Your task to perform on an android device: empty trash in the gmail app Image 0: 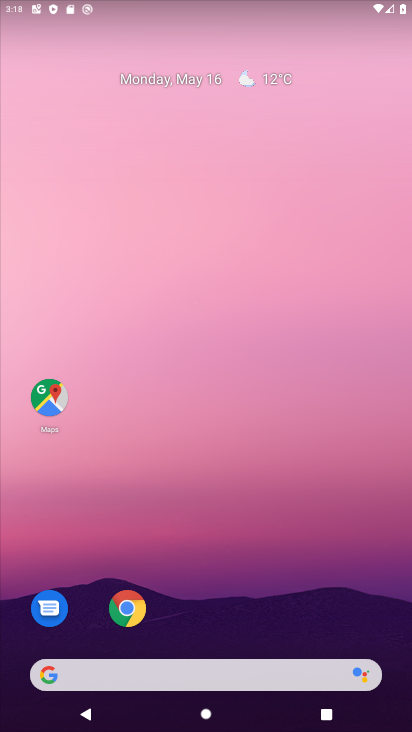
Step 0: drag from (192, 583) to (164, 0)
Your task to perform on an android device: empty trash in the gmail app Image 1: 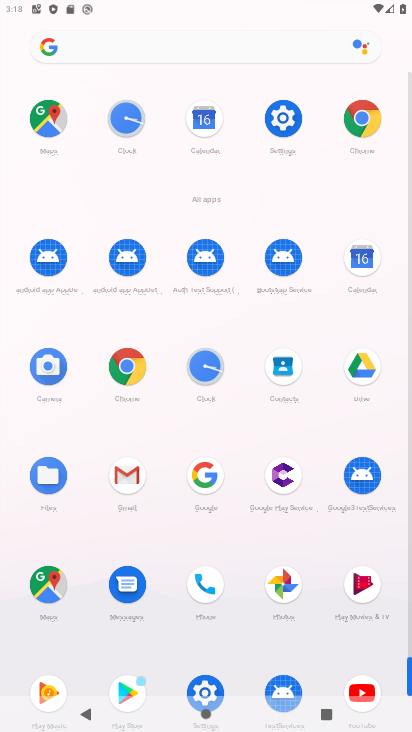
Step 1: click (121, 473)
Your task to perform on an android device: empty trash in the gmail app Image 2: 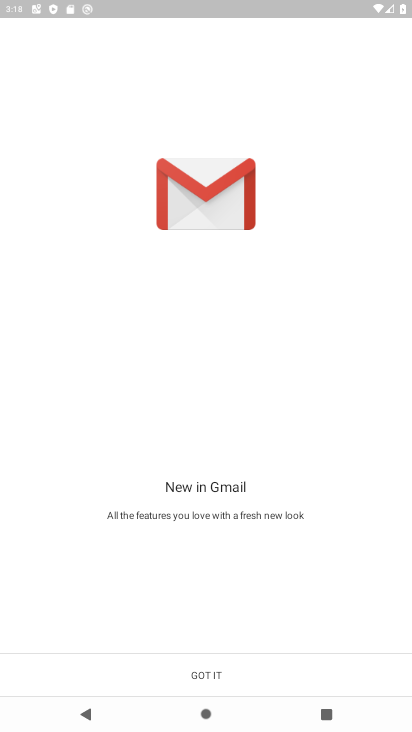
Step 2: click (208, 675)
Your task to perform on an android device: empty trash in the gmail app Image 3: 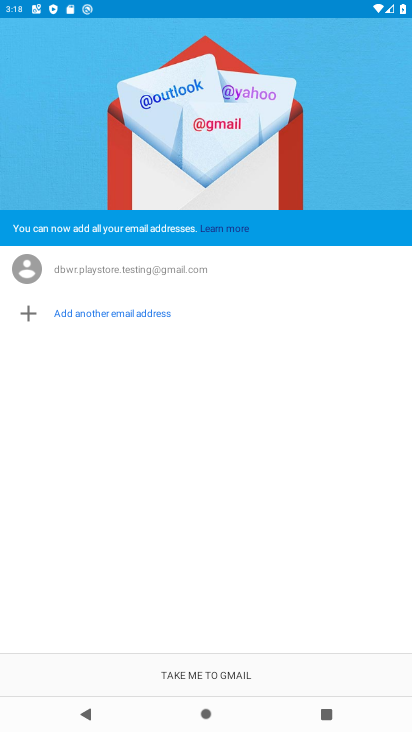
Step 3: click (219, 668)
Your task to perform on an android device: empty trash in the gmail app Image 4: 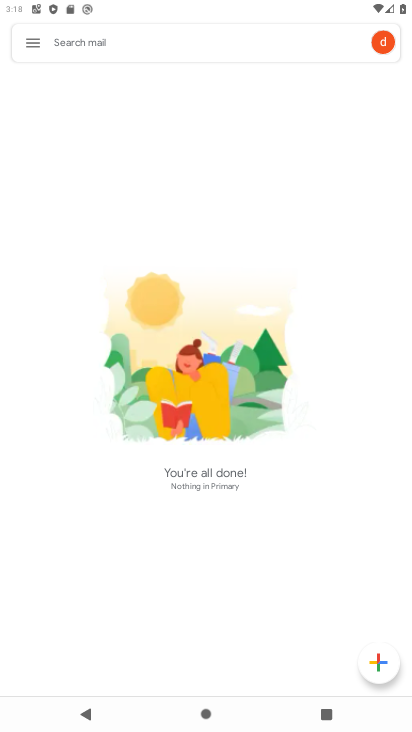
Step 4: click (25, 48)
Your task to perform on an android device: empty trash in the gmail app Image 5: 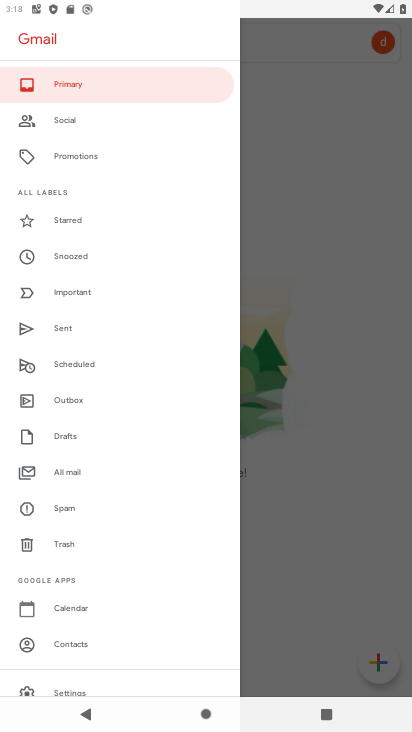
Step 5: click (80, 546)
Your task to perform on an android device: empty trash in the gmail app Image 6: 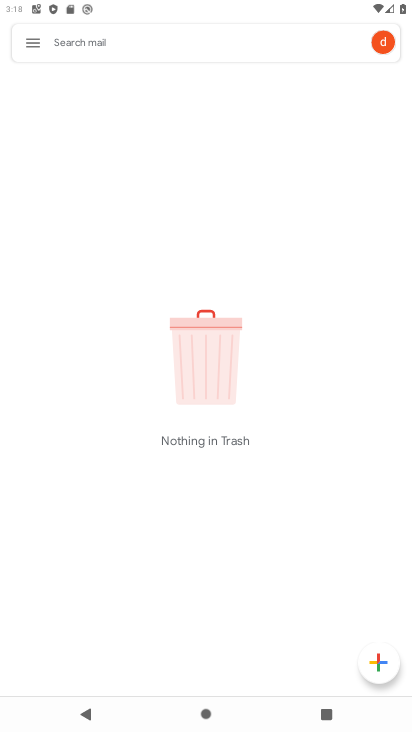
Step 6: task complete